Your task to perform on an android device: Search for "razer thresher" on walmart.com, select the first entry, add it to the cart, then select checkout. Image 0: 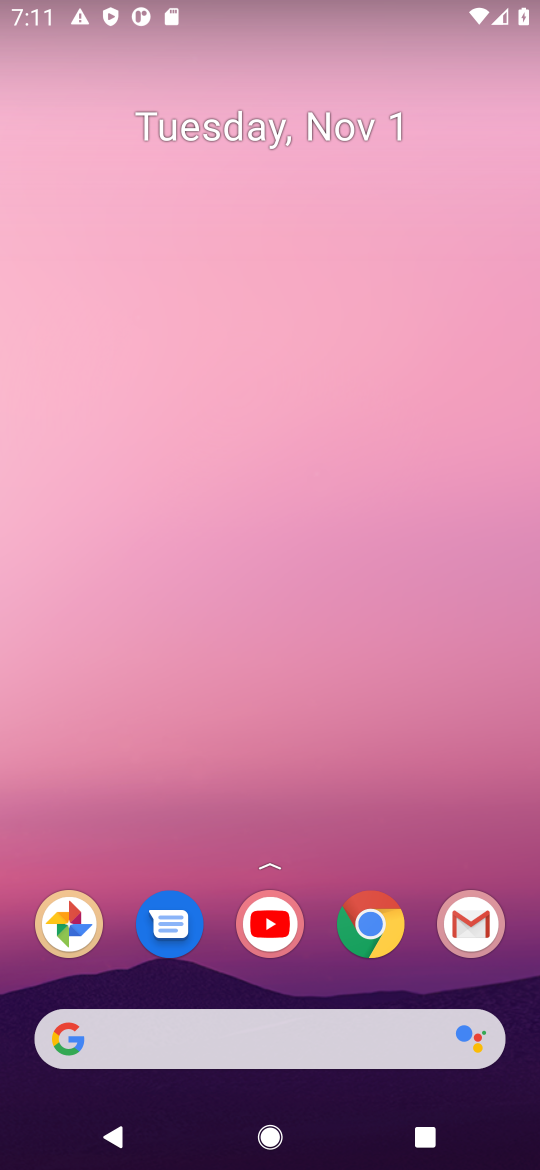
Step 0: press home button
Your task to perform on an android device: Search for "razer thresher" on walmart.com, select the first entry, add it to the cart, then select checkout. Image 1: 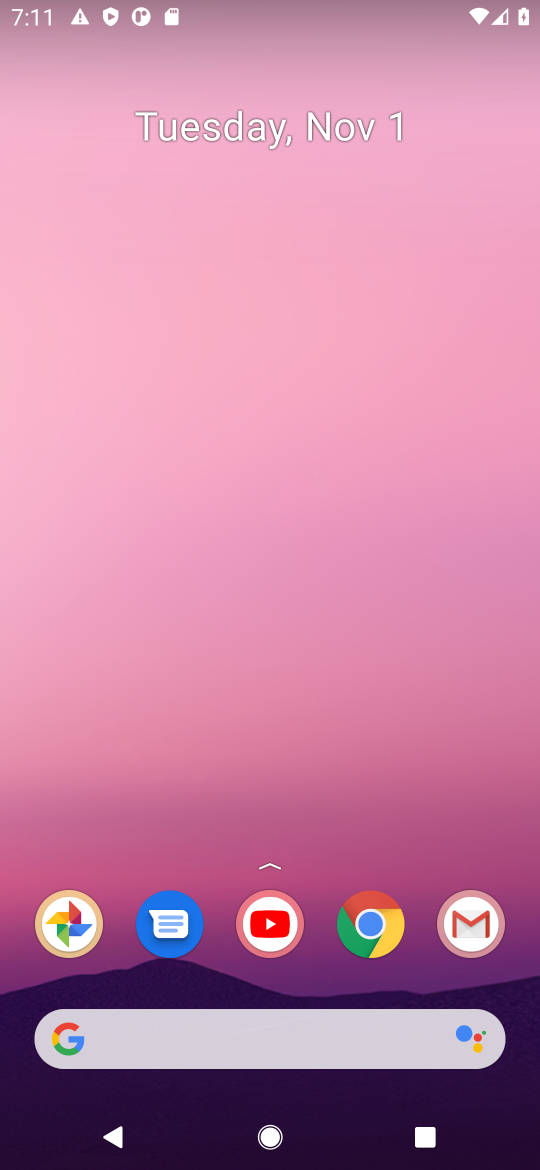
Step 1: click (109, 1051)
Your task to perform on an android device: Search for "razer thresher" on walmart.com, select the first entry, add it to the cart, then select checkout. Image 2: 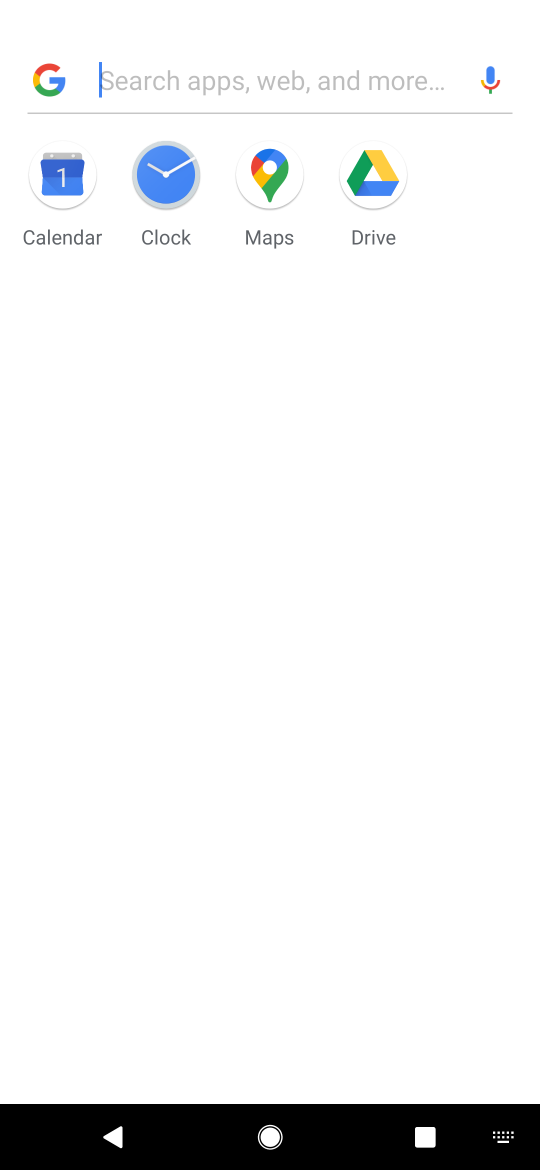
Step 2: press home button
Your task to perform on an android device: Search for "razer thresher" on walmart.com, select the first entry, add it to the cart, then select checkout. Image 3: 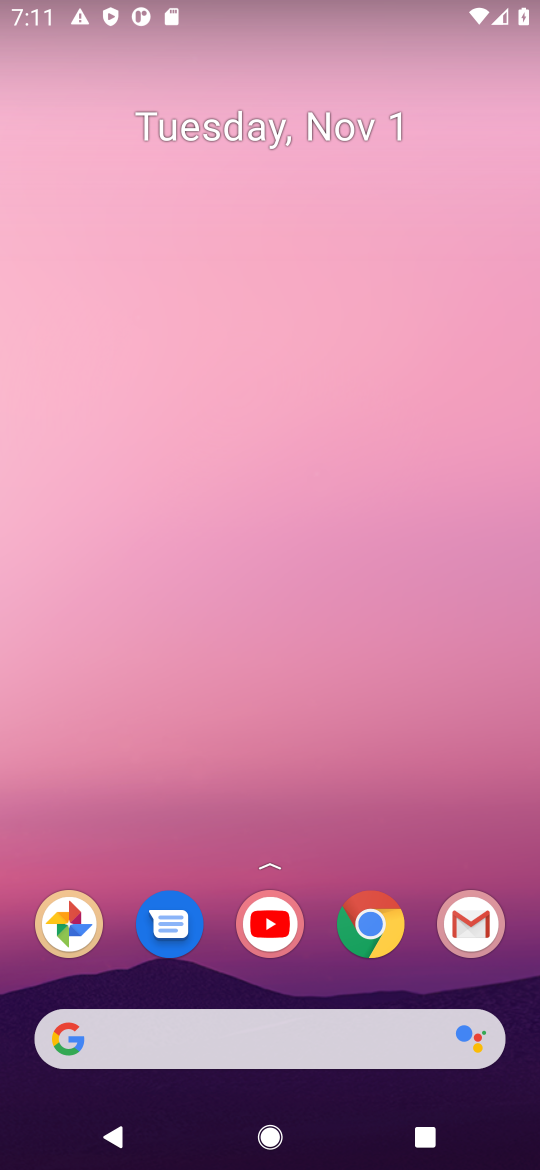
Step 3: drag from (445, 773) to (527, 111)
Your task to perform on an android device: Search for "razer thresher" on walmart.com, select the first entry, add it to the cart, then select checkout. Image 4: 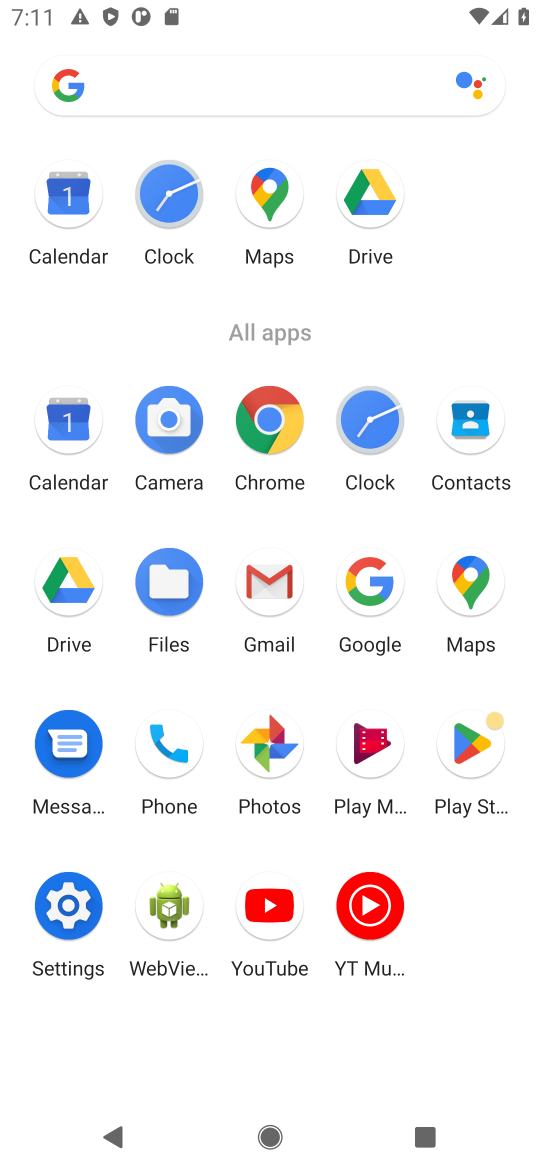
Step 4: click (363, 588)
Your task to perform on an android device: Search for "razer thresher" on walmart.com, select the first entry, add it to the cart, then select checkout. Image 5: 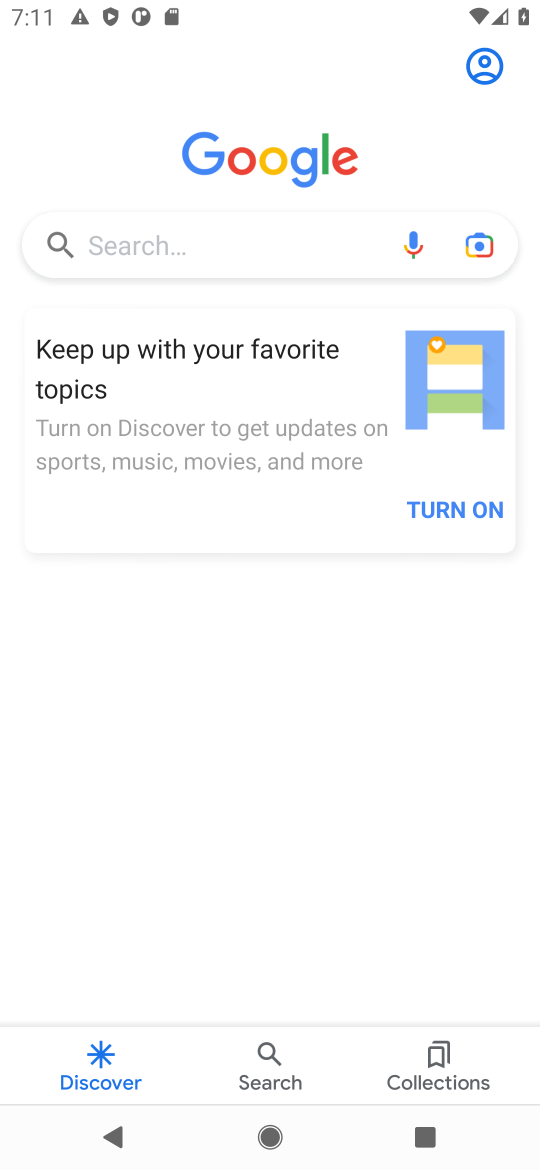
Step 5: click (487, 502)
Your task to perform on an android device: Search for "razer thresher" on walmart.com, select the first entry, add it to the cart, then select checkout. Image 6: 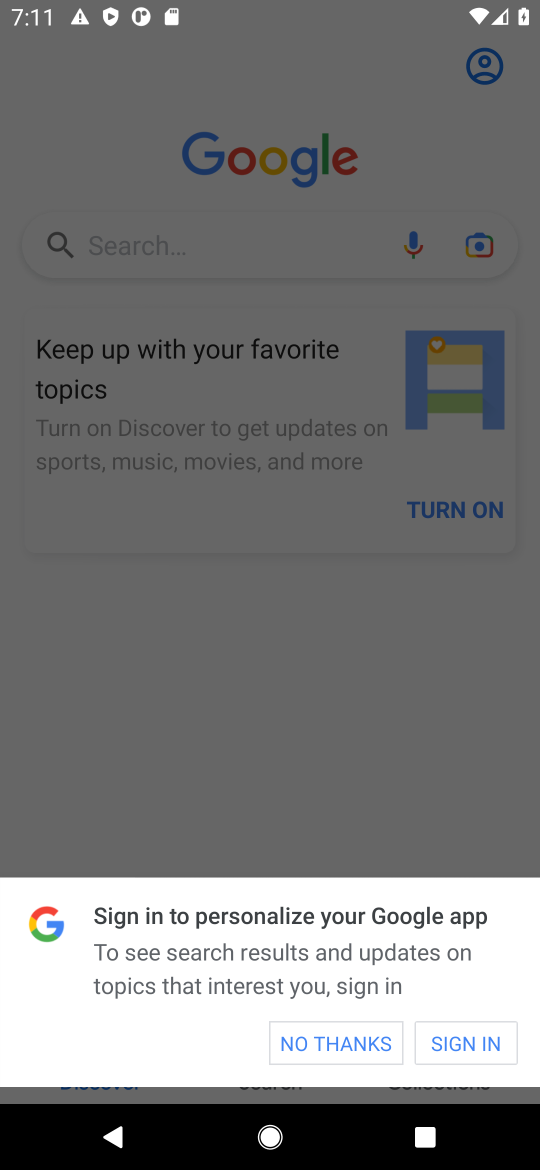
Step 6: click (353, 1042)
Your task to perform on an android device: Search for "razer thresher" on walmart.com, select the first entry, add it to the cart, then select checkout. Image 7: 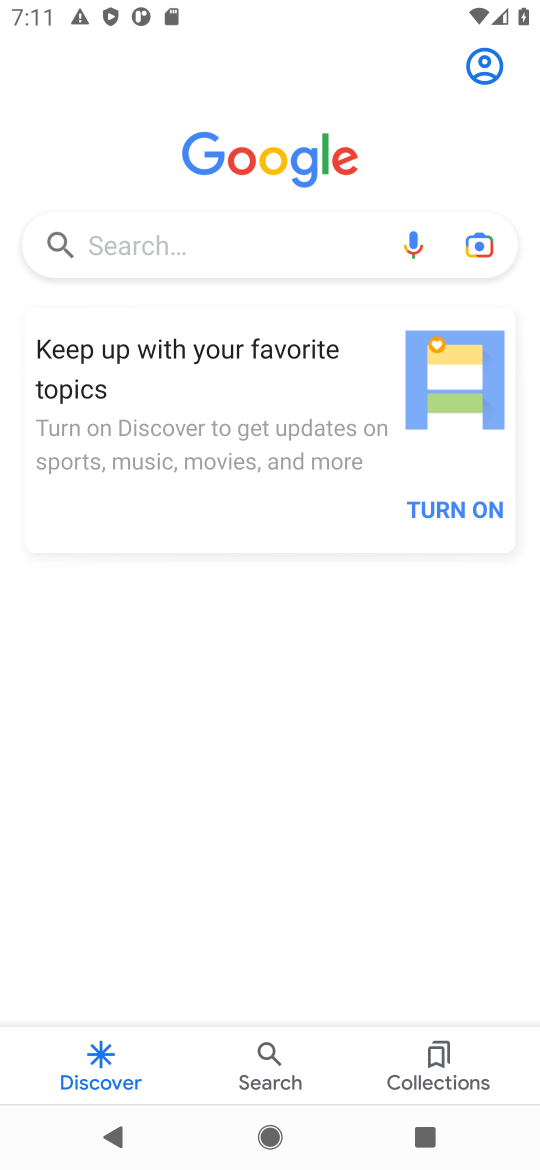
Step 7: click (174, 245)
Your task to perform on an android device: Search for "razer thresher" on walmart.com, select the first entry, add it to the cart, then select checkout. Image 8: 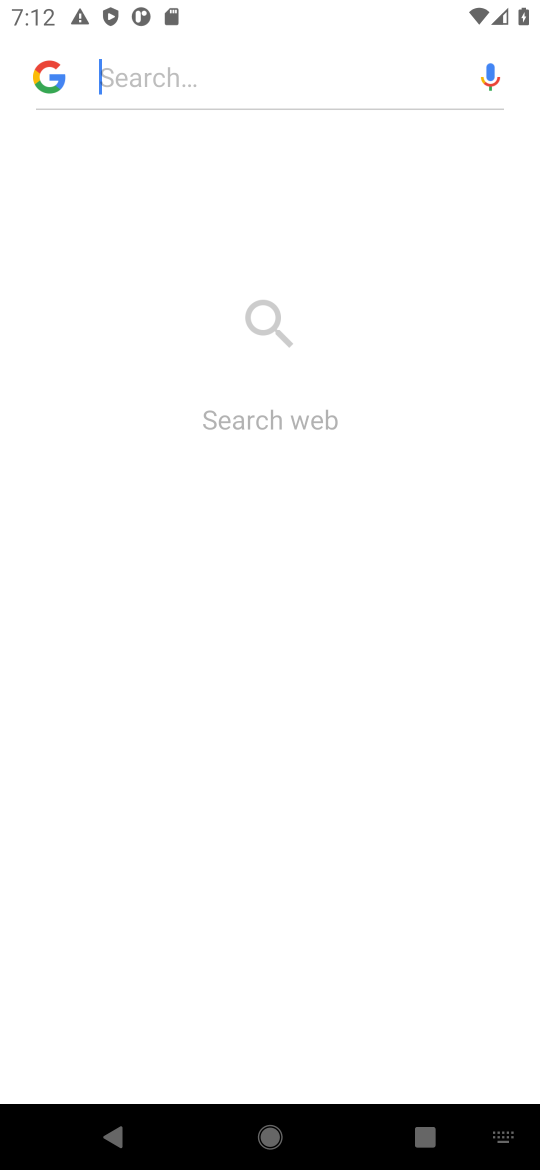
Step 8: type " walmart.com"
Your task to perform on an android device: Search for "razer thresher" on walmart.com, select the first entry, add it to the cart, then select checkout. Image 9: 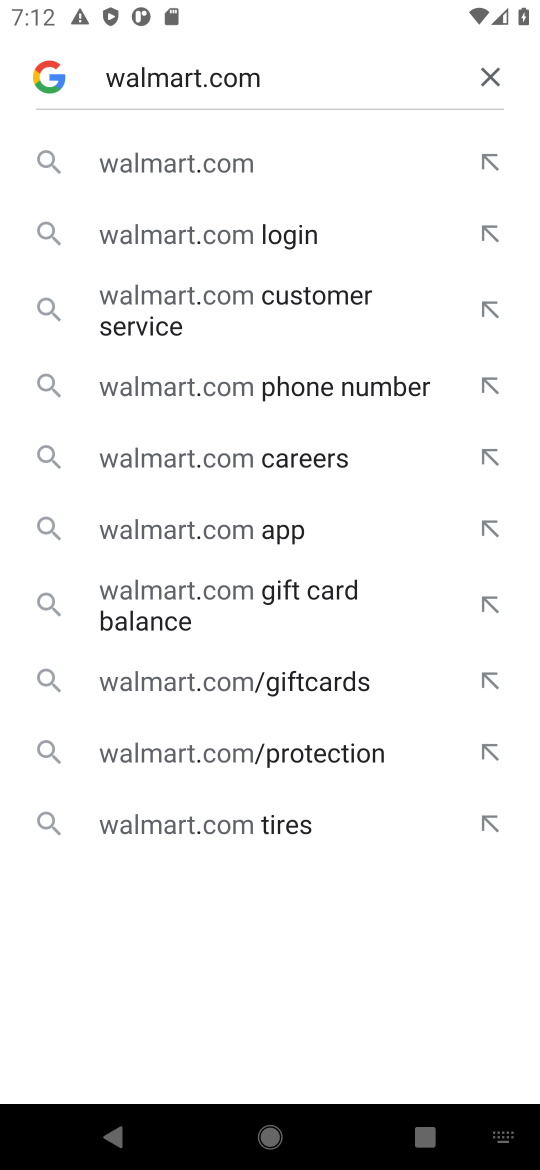
Step 9: press enter
Your task to perform on an android device: Search for "razer thresher" on walmart.com, select the first entry, add it to the cart, then select checkout. Image 10: 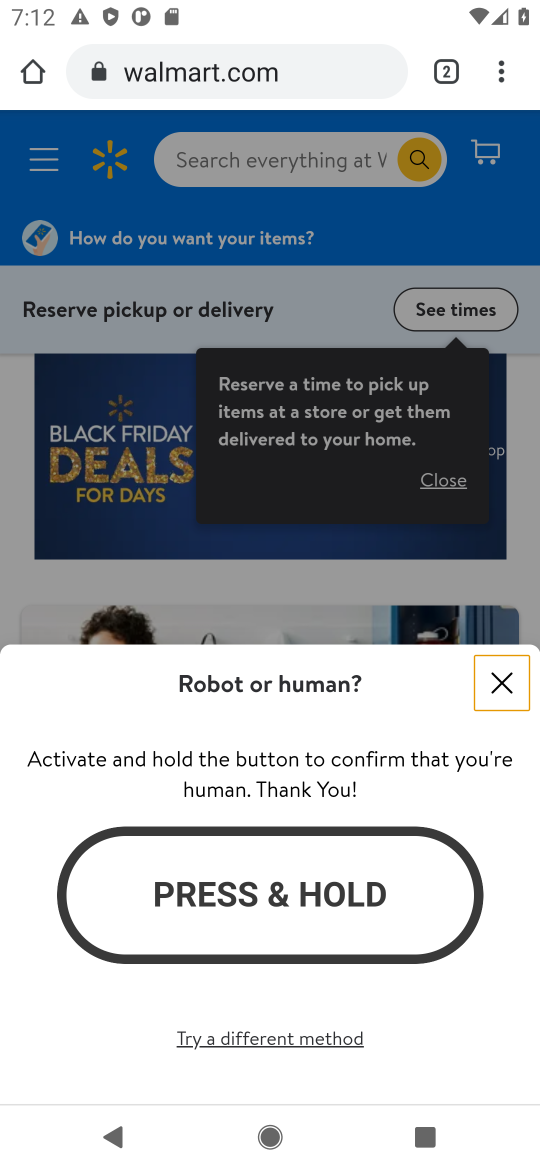
Step 10: click (195, 149)
Your task to perform on an android device: Search for "razer thresher" on walmart.com, select the first entry, add it to the cart, then select checkout. Image 11: 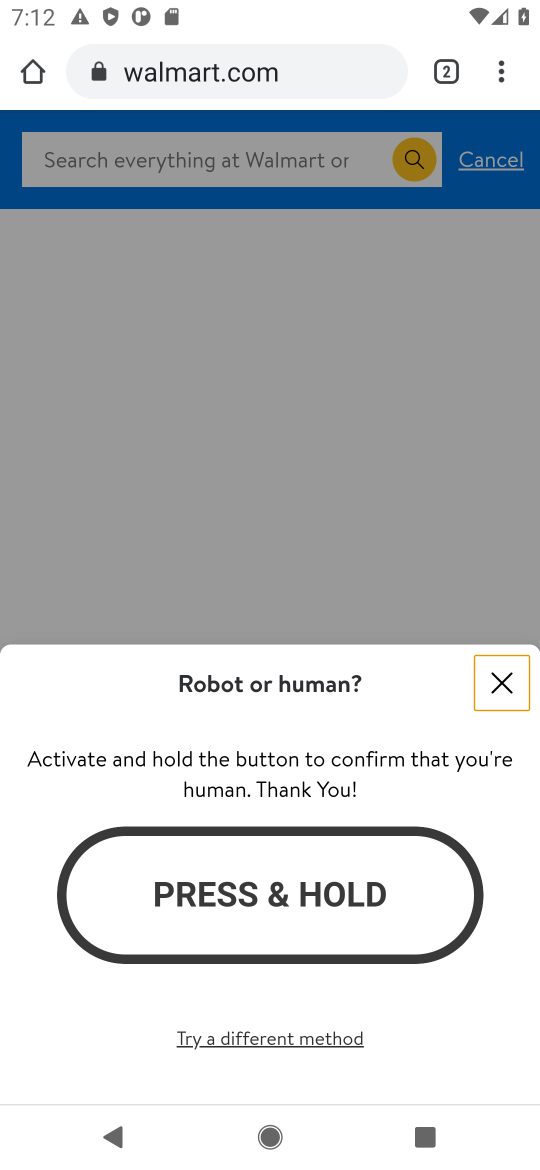
Step 11: click (501, 684)
Your task to perform on an android device: Search for "razer thresher" on walmart.com, select the first entry, add it to the cart, then select checkout. Image 12: 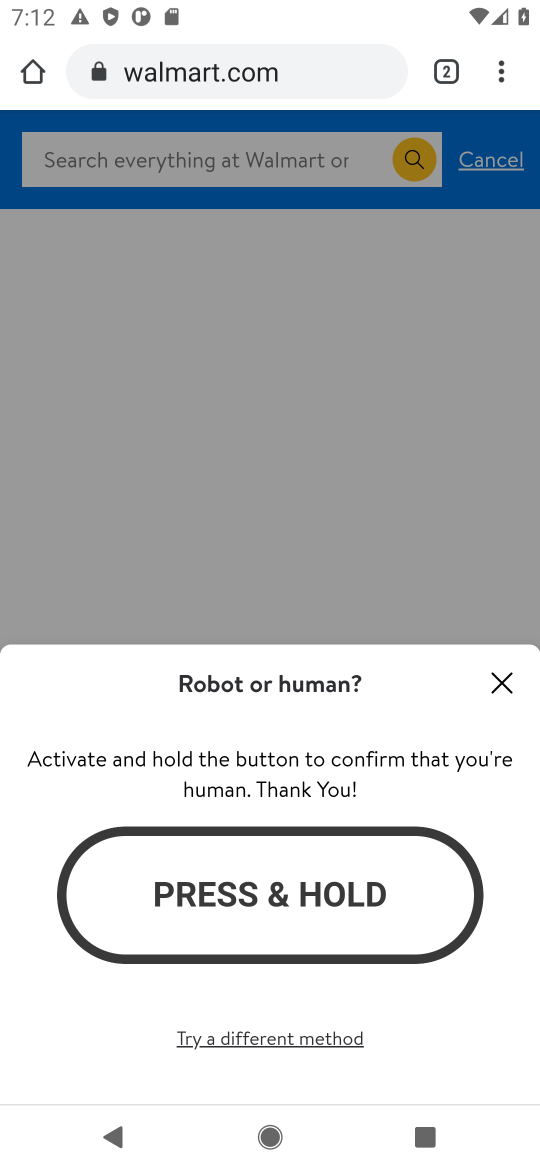
Step 12: click (500, 690)
Your task to perform on an android device: Search for "razer thresher" on walmart.com, select the first entry, add it to the cart, then select checkout. Image 13: 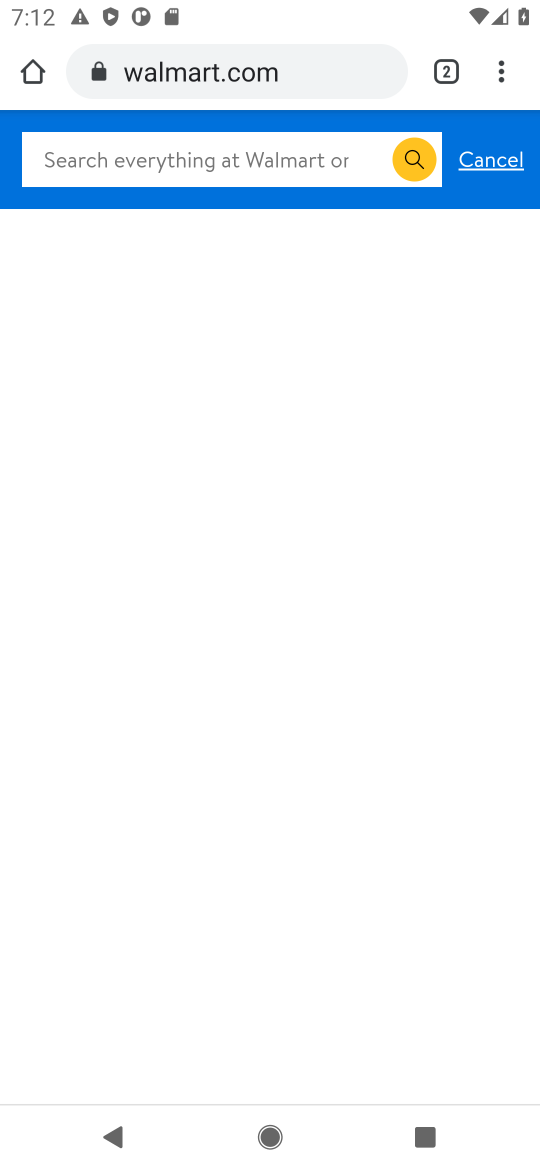
Step 13: type "razer thresher"
Your task to perform on an android device: Search for "razer thresher" on walmart.com, select the first entry, add it to the cart, then select checkout. Image 14: 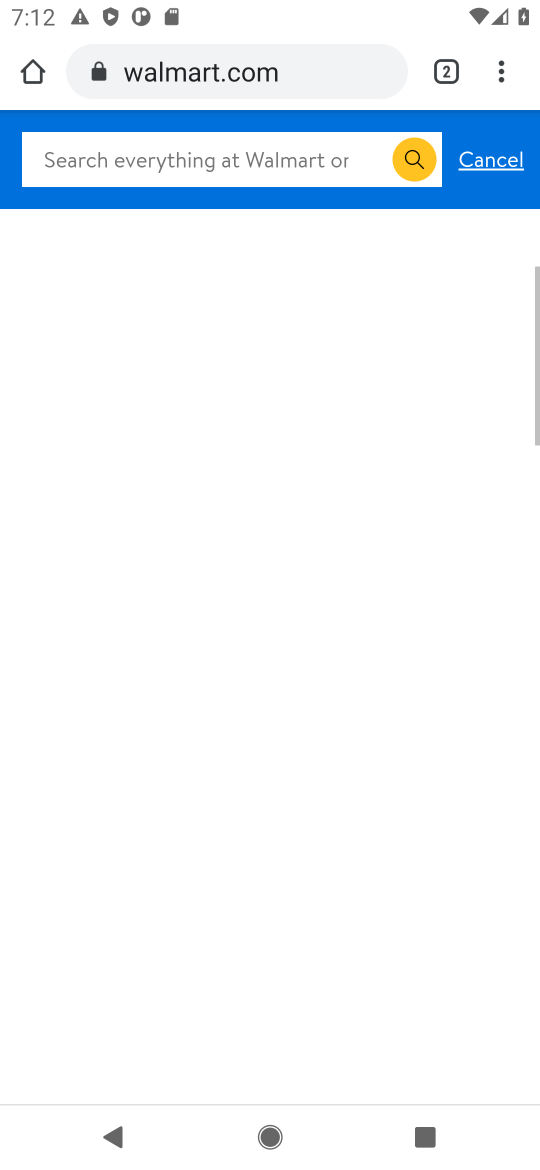
Step 14: press enter
Your task to perform on an android device: Search for "razer thresher" on walmart.com, select the first entry, add it to the cart, then select checkout. Image 15: 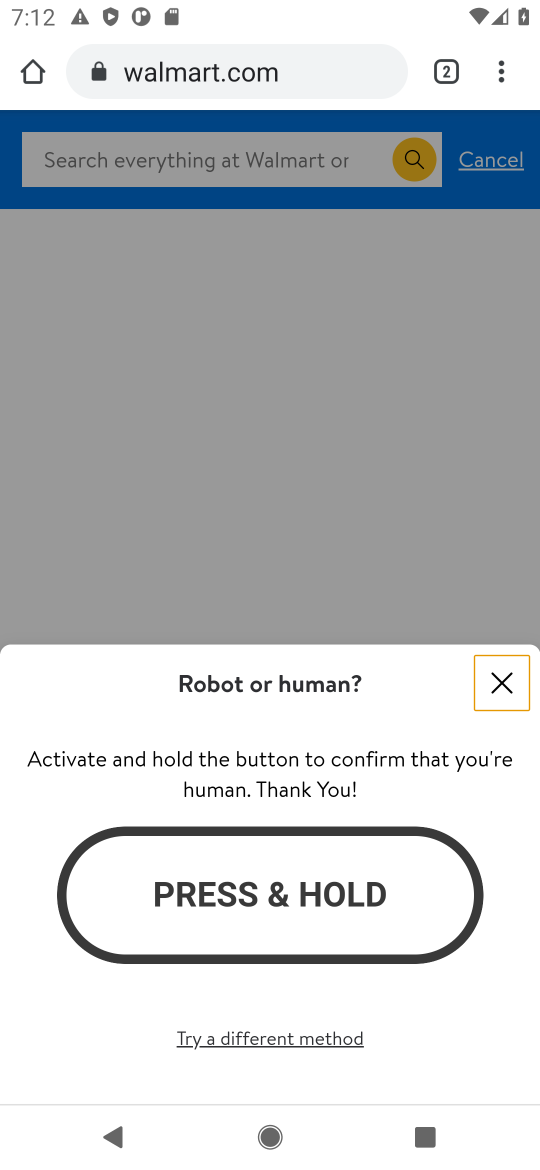
Step 15: click (511, 680)
Your task to perform on an android device: Search for "razer thresher" on walmart.com, select the first entry, add it to the cart, then select checkout. Image 16: 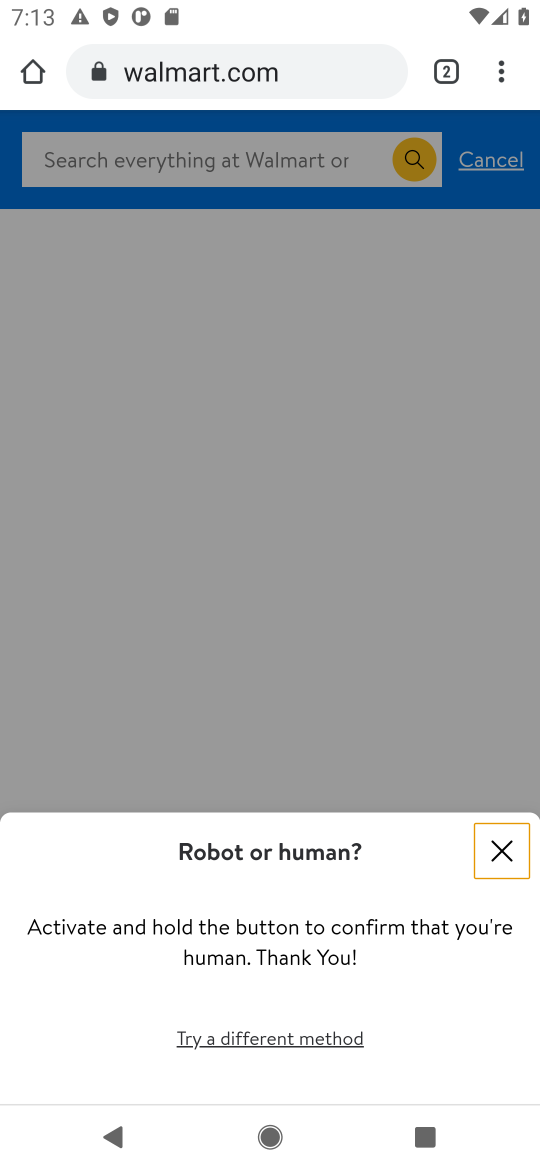
Step 16: click (105, 161)
Your task to perform on an android device: Search for "razer thresher" on walmart.com, select the first entry, add it to the cart, then select checkout. Image 17: 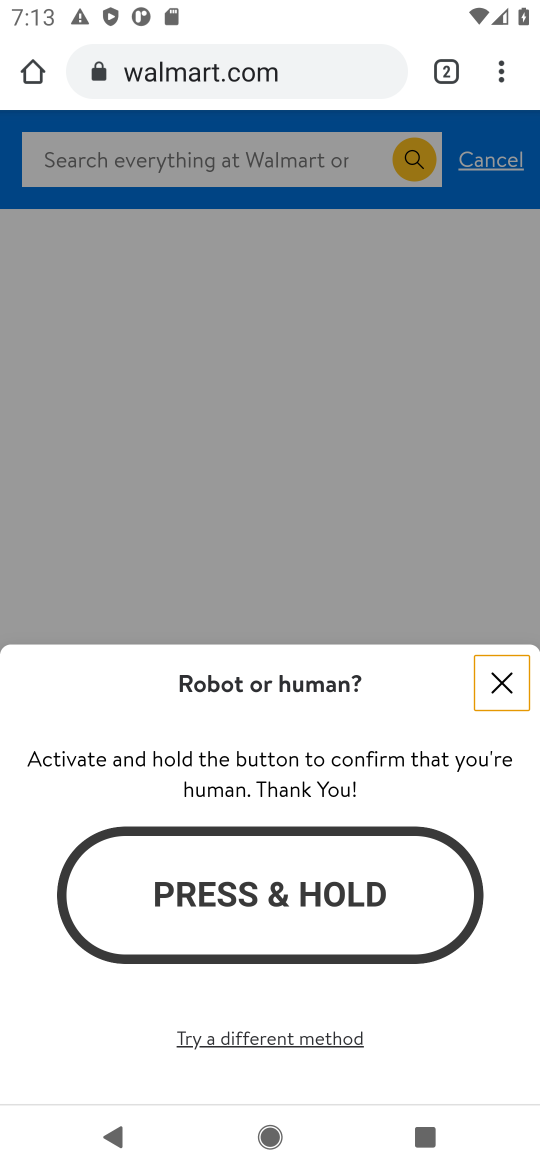
Step 17: task complete